Your task to perform on an android device: snooze an email in the gmail app Image 0: 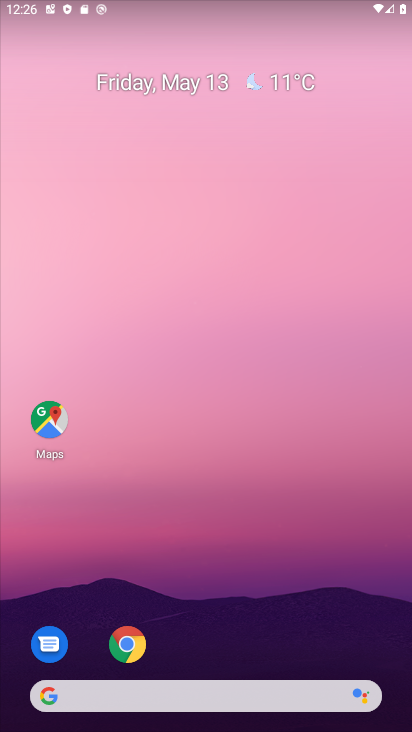
Step 0: drag from (207, 728) to (210, 1)
Your task to perform on an android device: snooze an email in the gmail app Image 1: 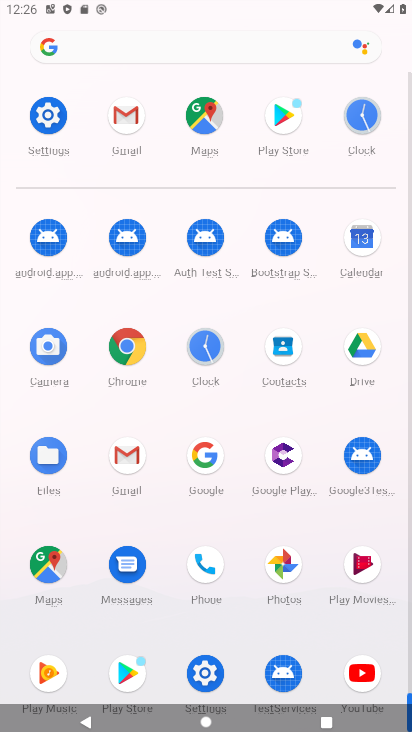
Step 1: click (130, 450)
Your task to perform on an android device: snooze an email in the gmail app Image 2: 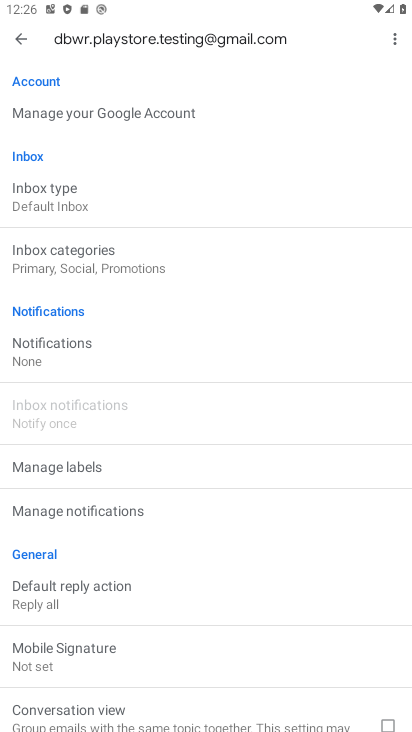
Step 2: click (22, 40)
Your task to perform on an android device: snooze an email in the gmail app Image 3: 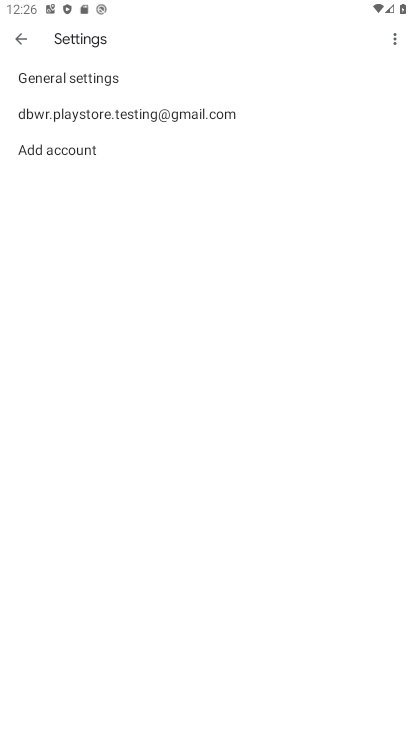
Step 3: click (23, 41)
Your task to perform on an android device: snooze an email in the gmail app Image 4: 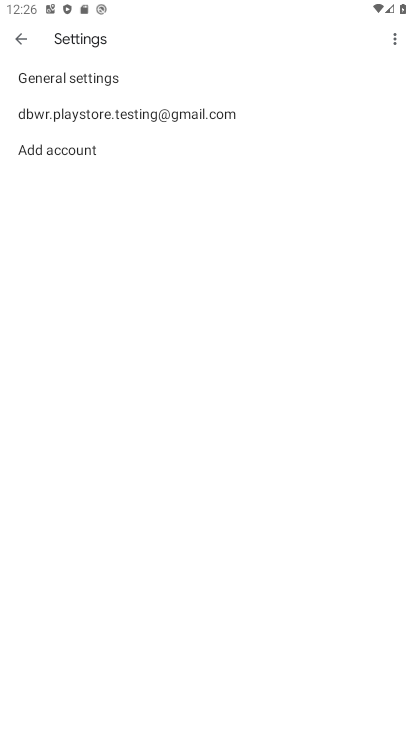
Step 4: click (22, 33)
Your task to perform on an android device: snooze an email in the gmail app Image 5: 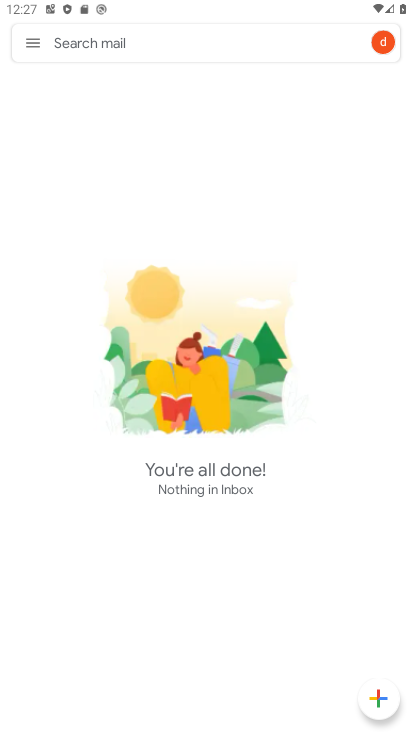
Step 5: task complete